Your task to perform on an android device: Open CNN.com Image 0: 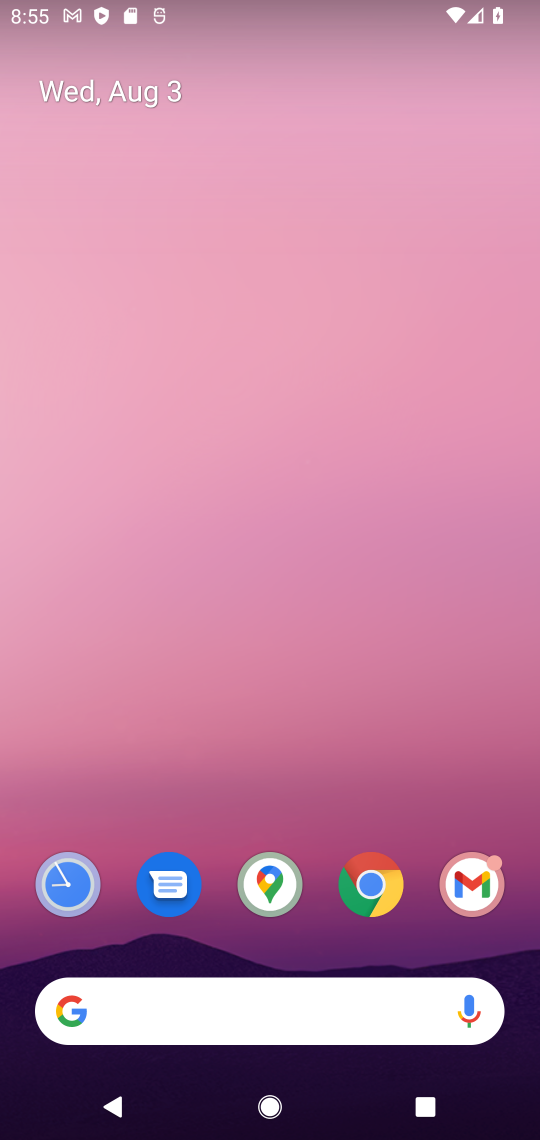
Step 0: click (150, 1010)
Your task to perform on an android device: Open CNN.com Image 1: 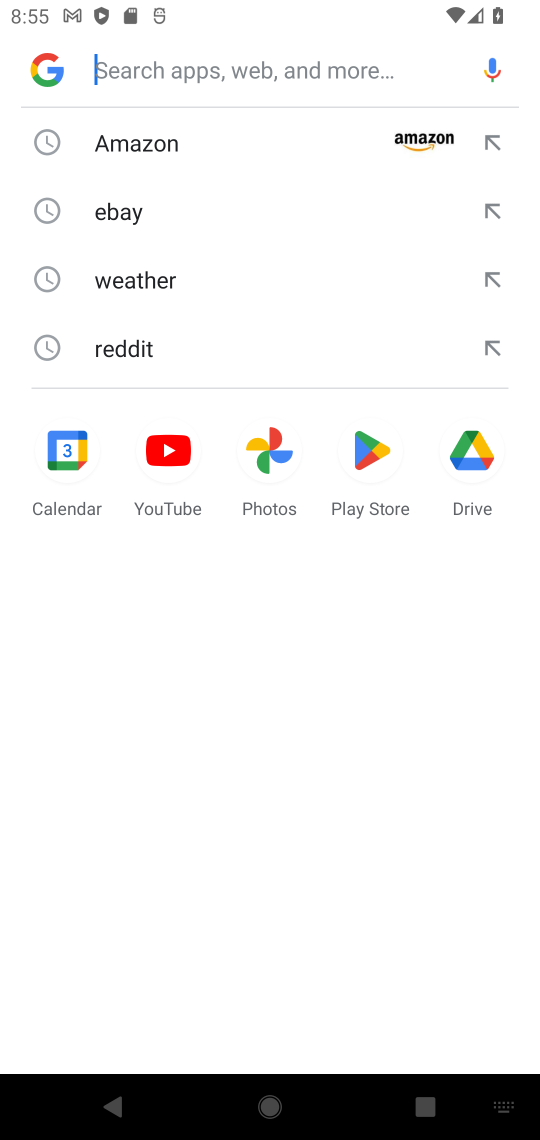
Step 1: type "CNN.com"
Your task to perform on an android device: Open CNN.com Image 2: 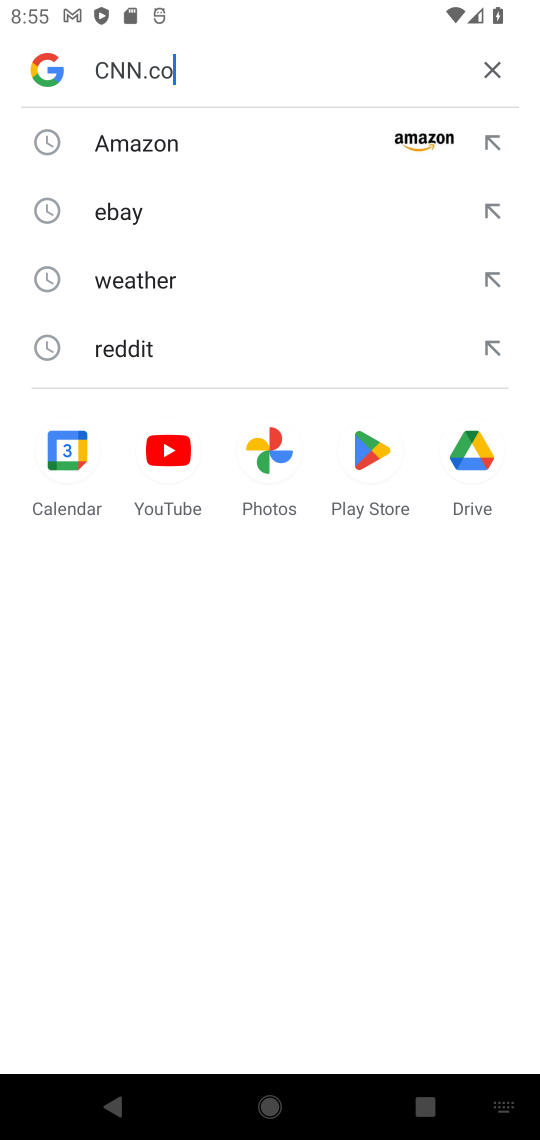
Step 2: type ""
Your task to perform on an android device: Open CNN.com Image 3: 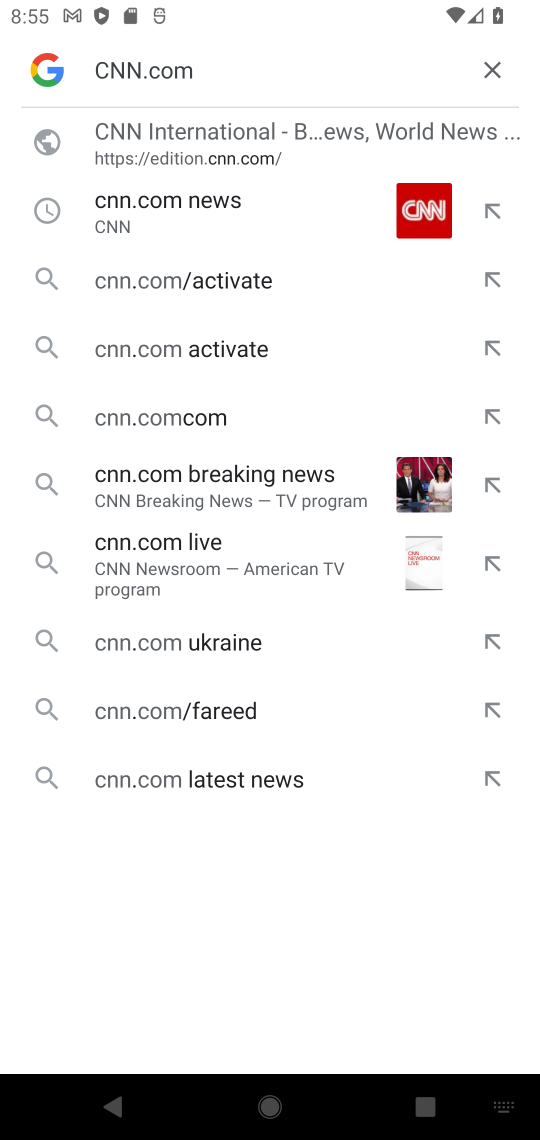
Step 3: click (200, 152)
Your task to perform on an android device: Open CNN.com Image 4: 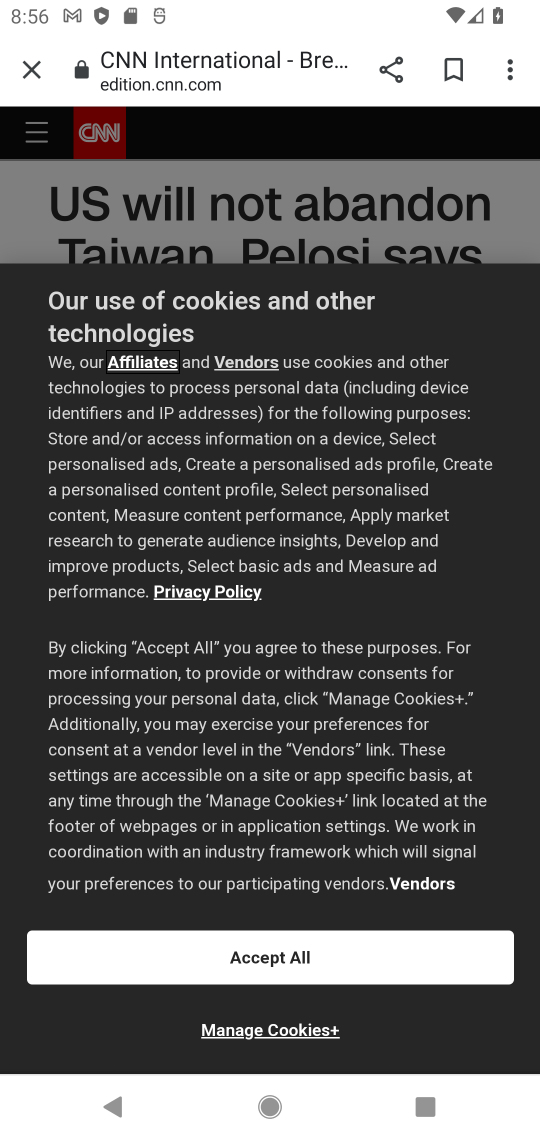
Step 4: task complete